Your task to perform on an android device: toggle wifi Image 0: 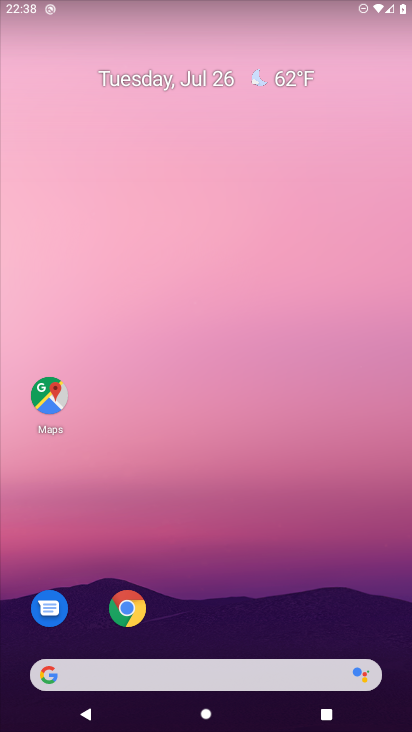
Step 0: drag from (100, 469) to (192, 95)
Your task to perform on an android device: toggle wifi Image 1: 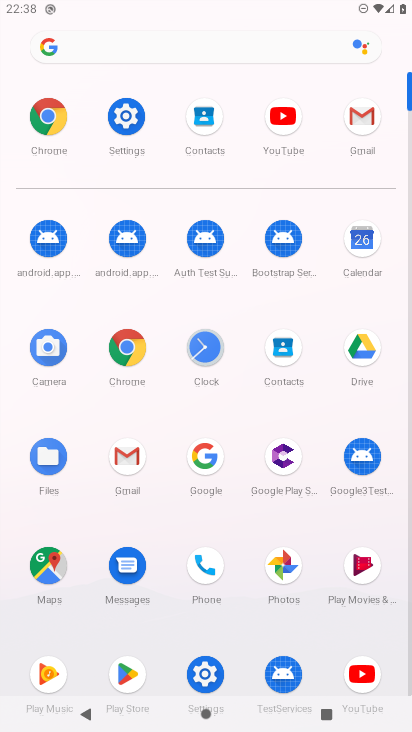
Step 1: click (199, 672)
Your task to perform on an android device: toggle wifi Image 2: 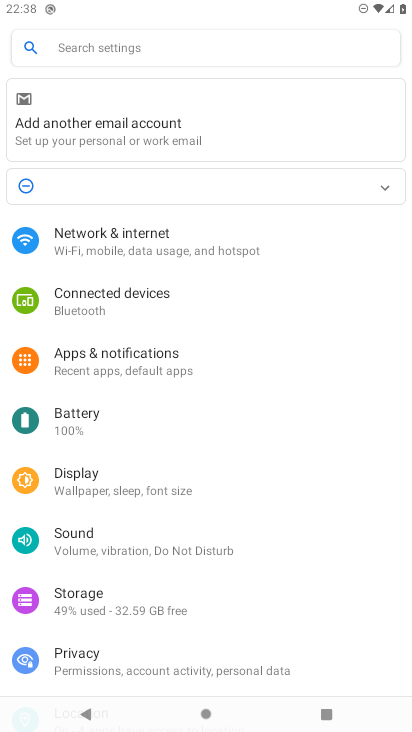
Step 2: click (145, 242)
Your task to perform on an android device: toggle wifi Image 3: 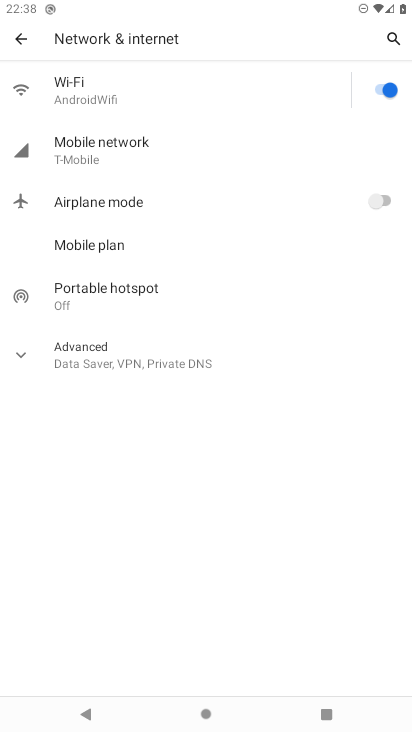
Step 3: task complete